Your task to perform on an android device: all mails in gmail Image 0: 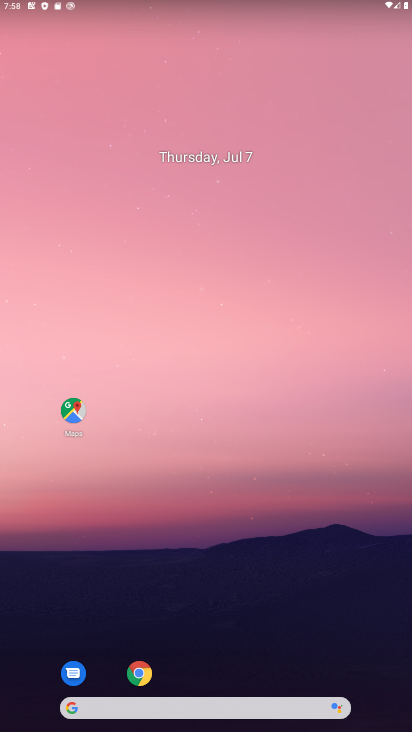
Step 0: drag from (183, 383) to (183, 343)
Your task to perform on an android device: all mails in gmail Image 1: 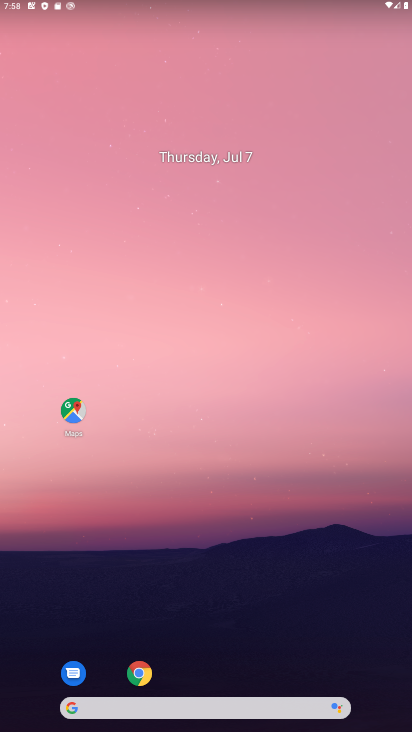
Step 1: drag from (207, 675) to (210, 16)
Your task to perform on an android device: all mails in gmail Image 2: 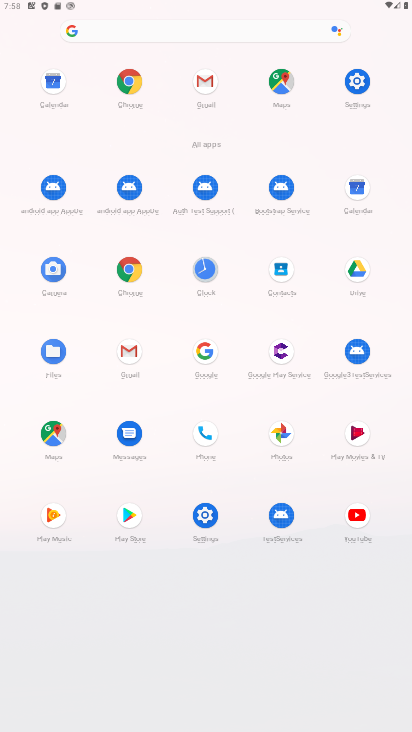
Step 2: click (207, 76)
Your task to perform on an android device: all mails in gmail Image 3: 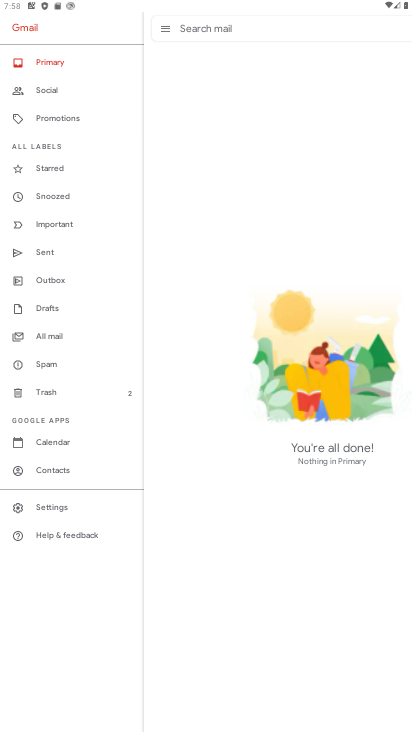
Step 3: click (56, 336)
Your task to perform on an android device: all mails in gmail Image 4: 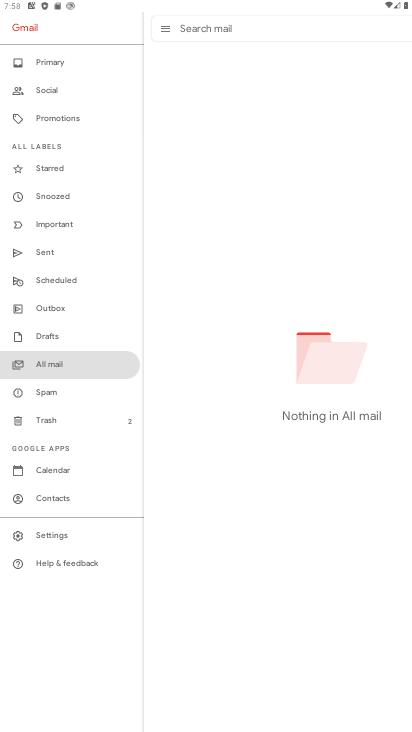
Step 4: task complete